Your task to perform on an android device: turn pop-ups off in chrome Image 0: 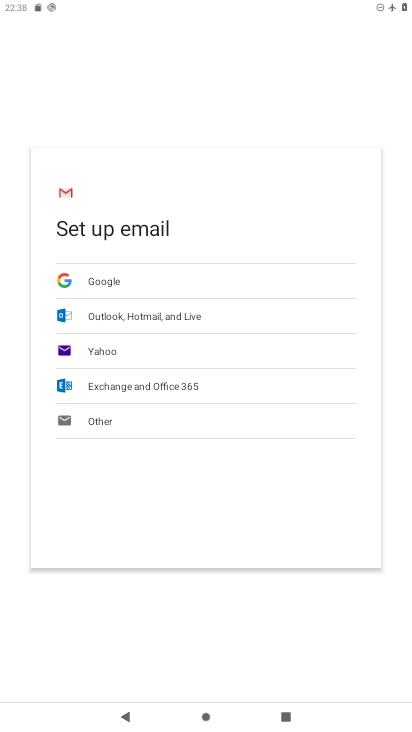
Step 0: press home button
Your task to perform on an android device: turn pop-ups off in chrome Image 1: 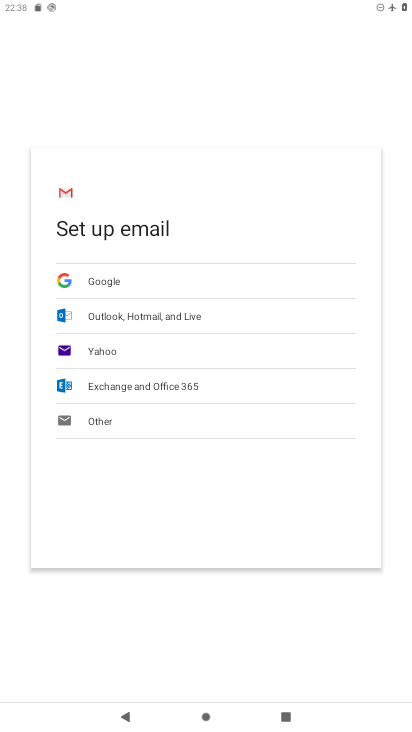
Step 1: press home button
Your task to perform on an android device: turn pop-ups off in chrome Image 2: 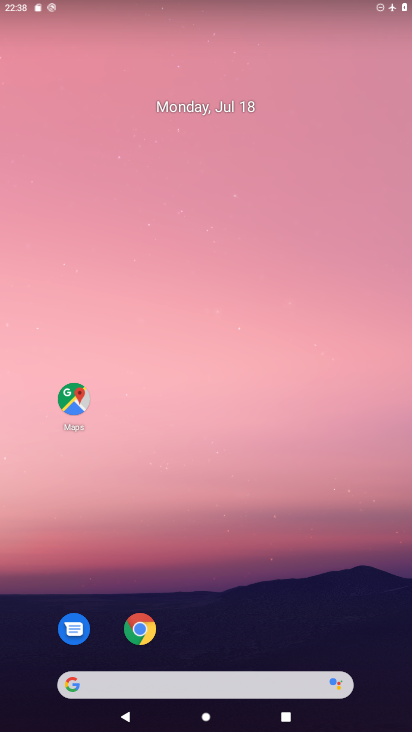
Step 2: drag from (279, 572) to (253, 118)
Your task to perform on an android device: turn pop-ups off in chrome Image 3: 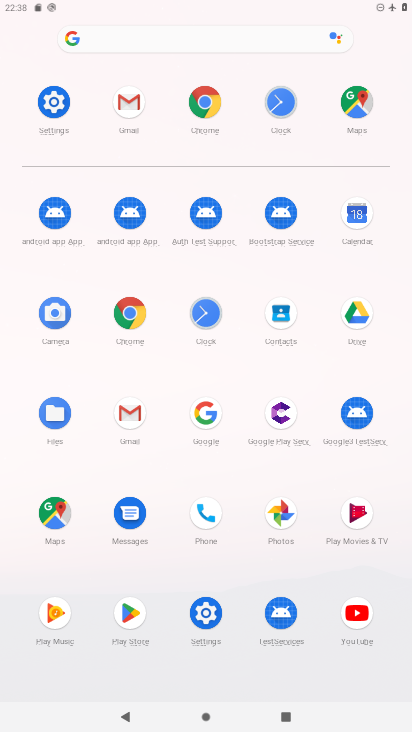
Step 3: click (206, 108)
Your task to perform on an android device: turn pop-ups off in chrome Image 4: 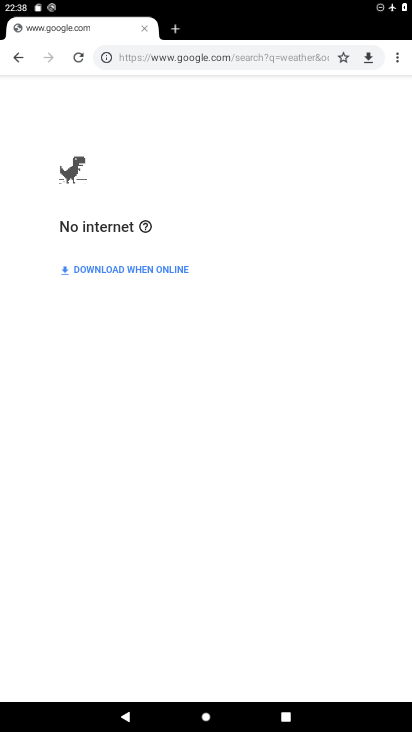
Step 4: drag from (404, 53) to (293, 383)
Your task to perform on an android device: turn pop-ups off in chrome Image 5: 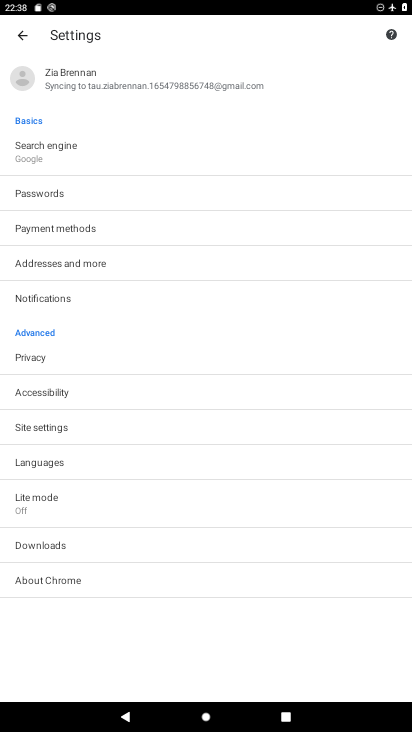
Step 5: click (64, 424)
Your task to perform on an android device: turn pop-ups off in chrome Image 6: 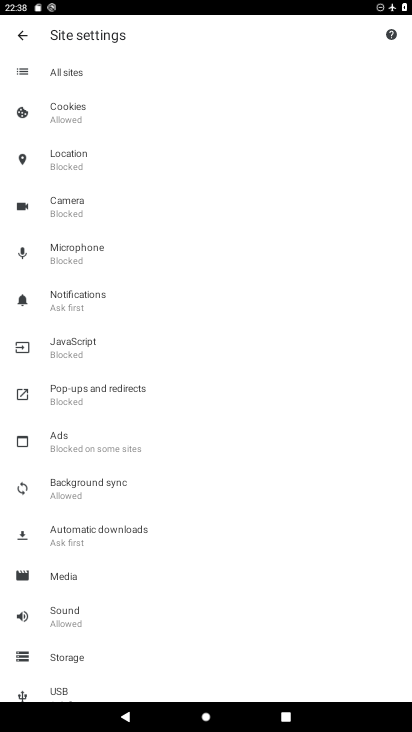
Step 6: click (121, 397)
Your task to perform on an android device: turn pop-ups off in chrome Image 7: 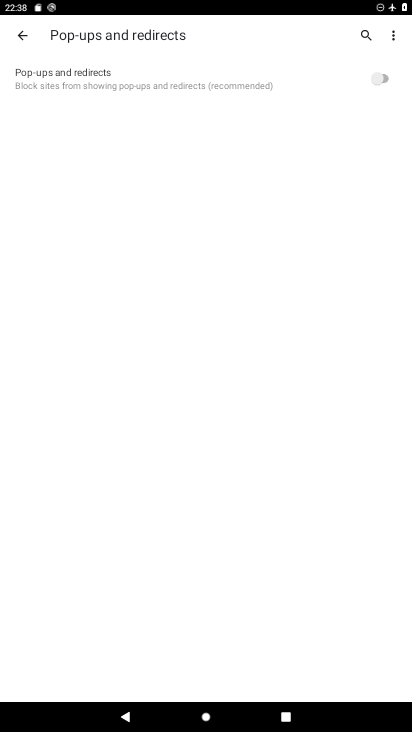
Step 7: task complete